Your task to perform on an android device: delete a single message in the gmail app Image 0: 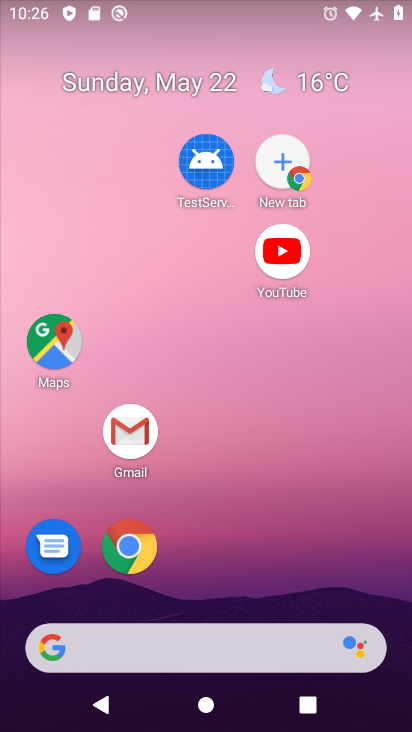
Step 0: drag from (277, 704) to (197, 172)
Your task to perform on an android device: delete a single message in the gmail app Image 1: 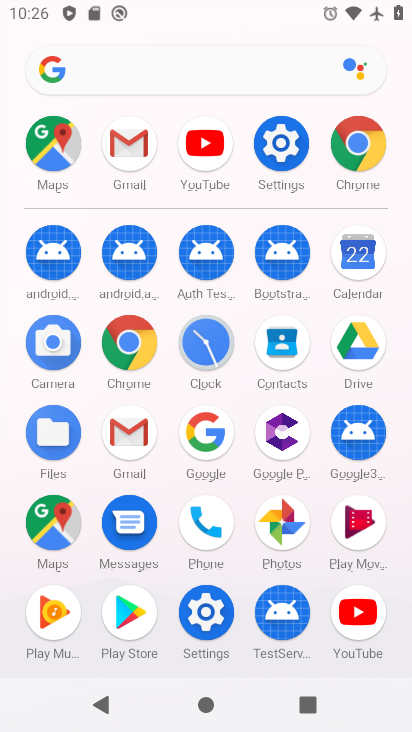
Step 1: click (111, 436)
Your task to perform on an android device: delete a single message in the gmail app Image 2: 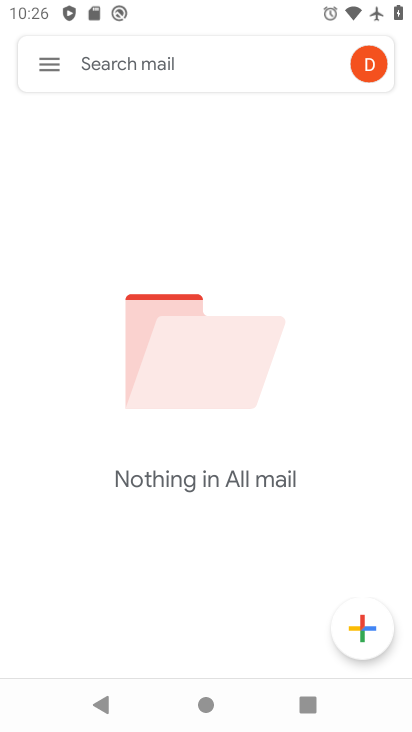
Step 2: click (46, 65)
Your task to perform on an android device: delete a single message in the gmail app Image 3: 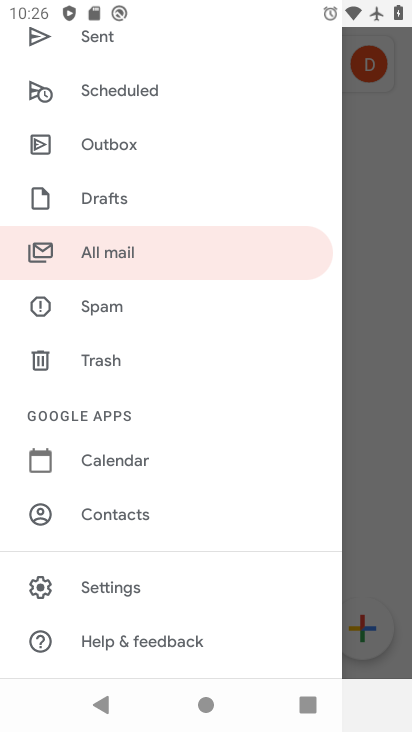
Step 3: click (109, 254)
Your task to perform on an android device: delete a single message in the gmail app Image 4: 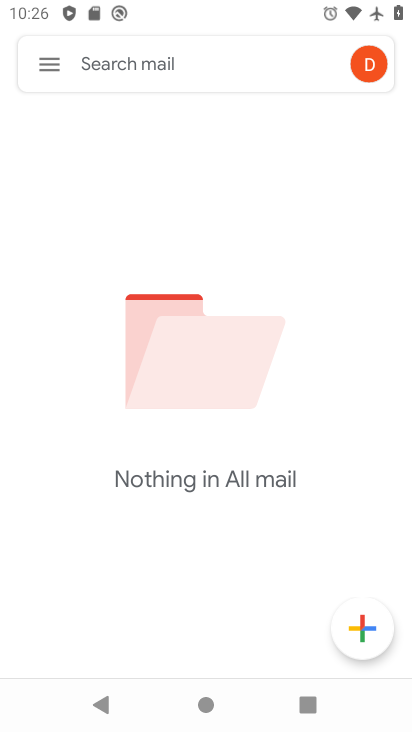
Step 4: task complete